Your task to perform on an android device: Open Google Maps Image 0: 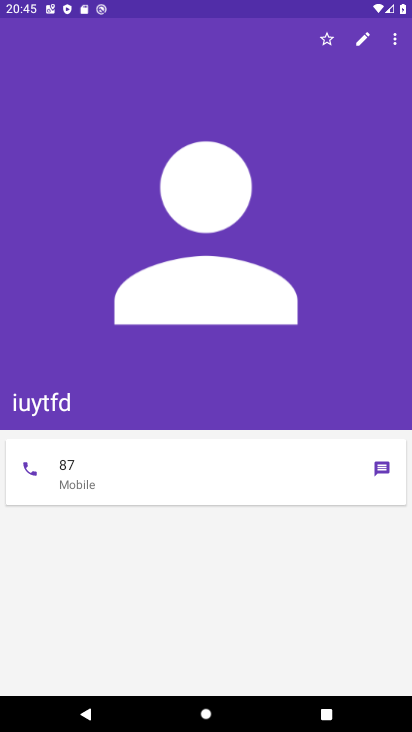
Step 0: press home button
Your task to perform on an android device: Open Google Maps Image 1: 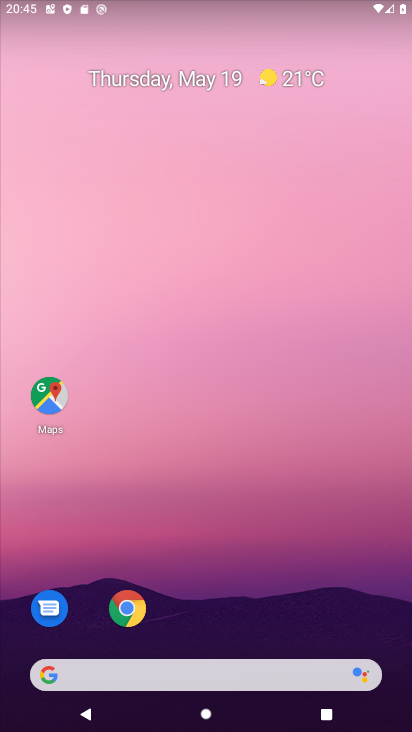
Step 1: click (49, 388)
Your task to perform on an android device: Open Google Maps Image 2: 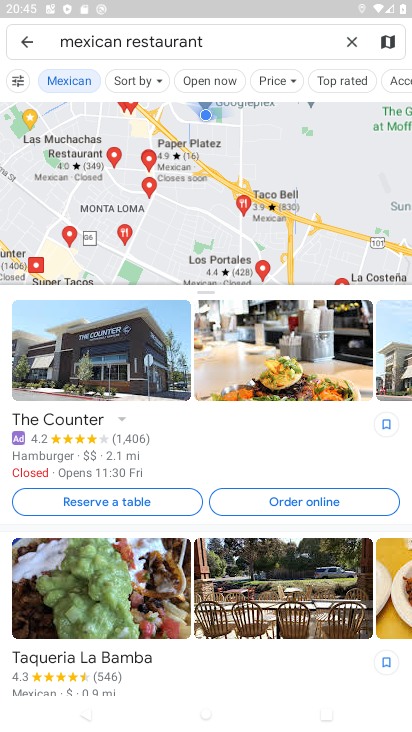
Step 2: task complete